Your task to perform on an android device: When is my next appointment? Image 0: 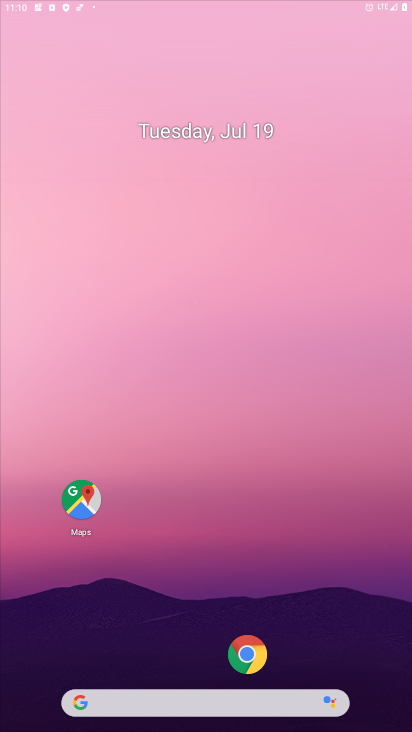
Step 0: click (253, 652)
Your task to perform on an android device: When is my next appointment? Image 1: 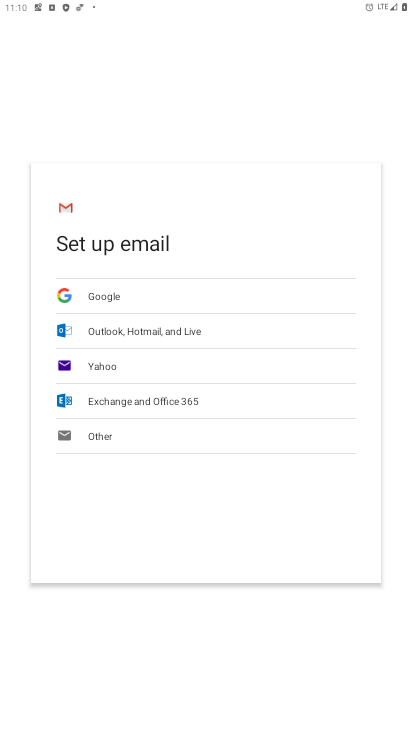
Step 1: press home button
Your task to perform on an android device: When is my next appointment? Image 2: 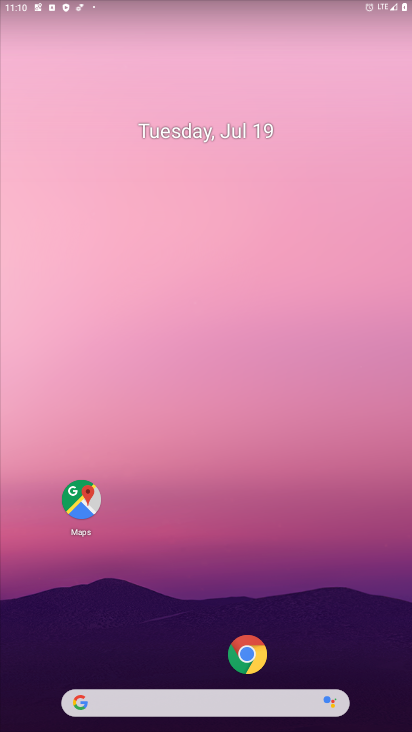
Step 2: click (195, 128)
Your task to perform on an android device: When is my next appointment? Image 3: 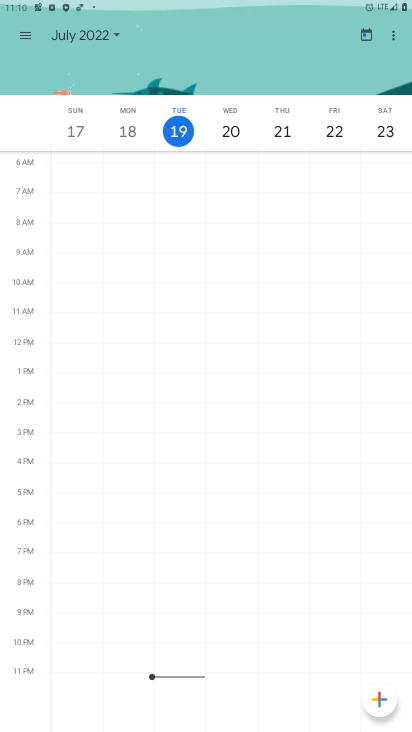
Step 3: click (35, 41)
Your task to perform on an android device: When is my next appointment? Image 4: 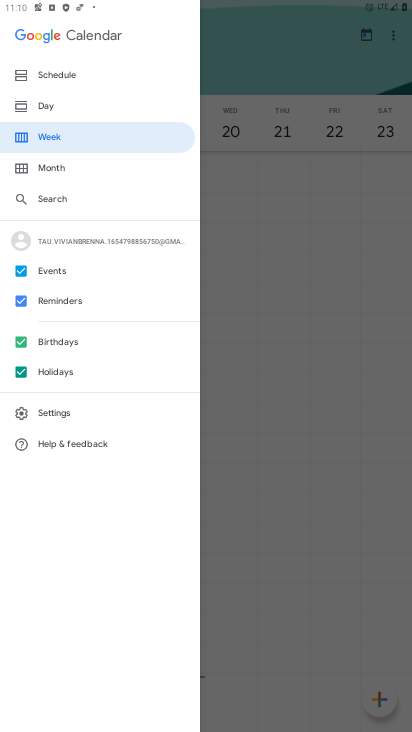
Step 4: click (78, 178)
Your task to perform on an android device: When is my next appointment? Image 5: 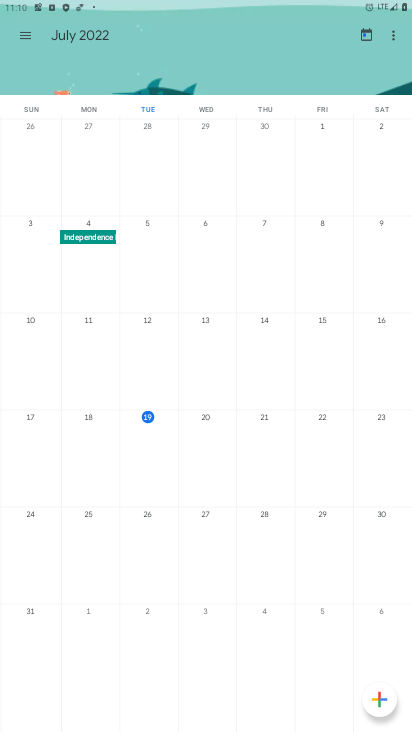
Step 5: click (60, 172)
Your task to perform on an android device: When is my next appointment? Image 6: 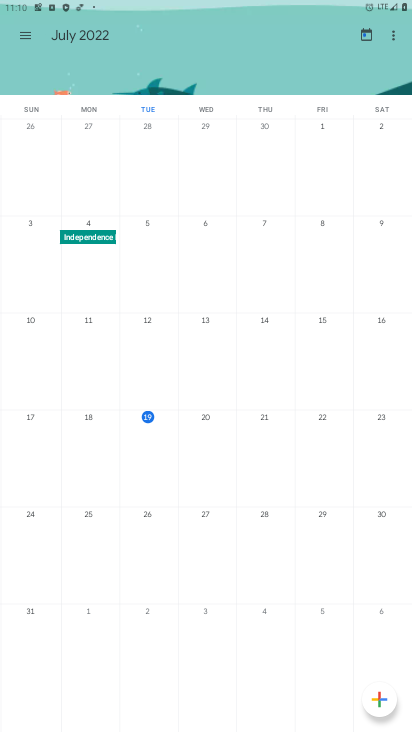
Step 6: click (60, 172)
Your task to perform on an android device: When is my next appointment? Image 7: 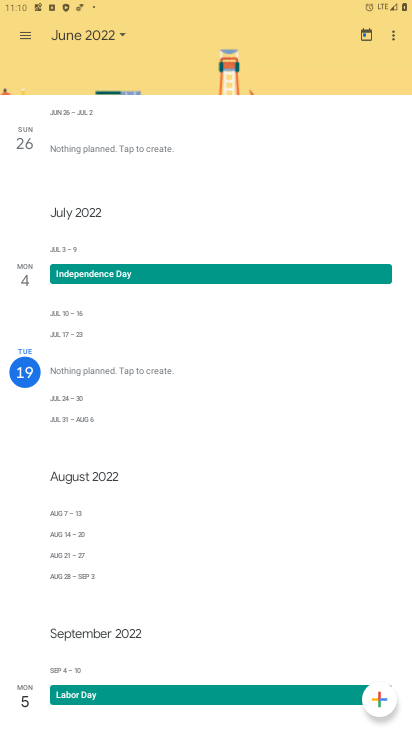
Step 7: task complete